Your task to perform on an android device: Open network settings Image 0: 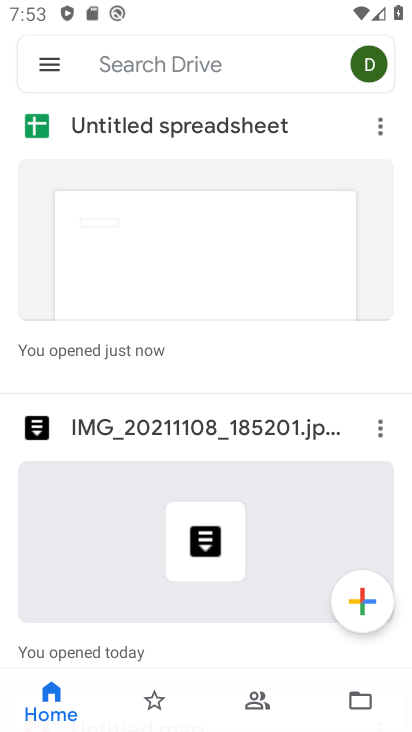
Step 0: press home button
Your task to perform on an android device: Open network settings Image 1: 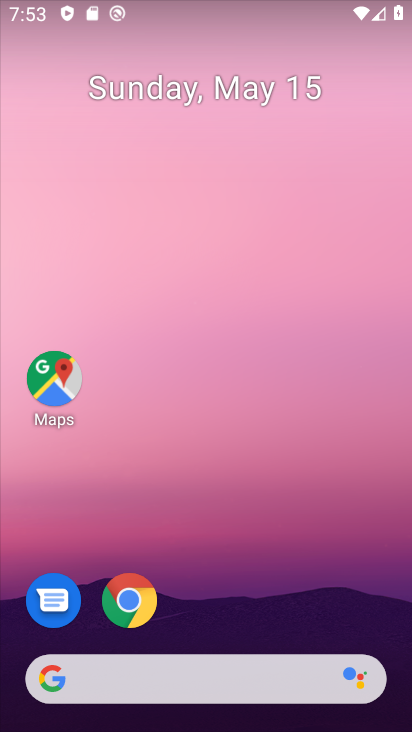
Step 1: drag from (176, 496) to (89, 51)
Your task to perform on an android device: Open network settings Image 2: 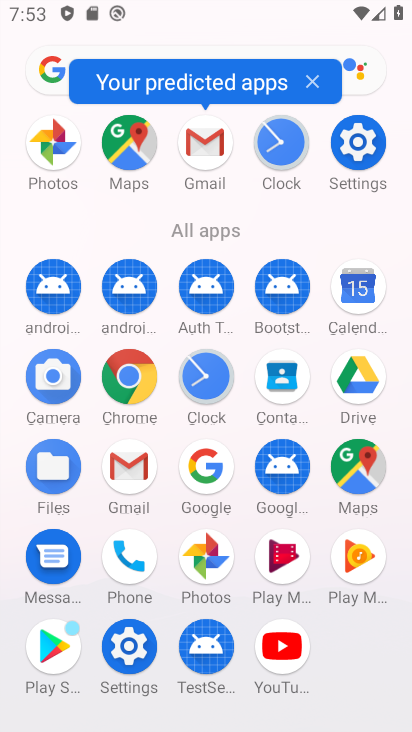
Step 2: click (130, 657)
Your task to perform on an android device: Open network settings Image 3: 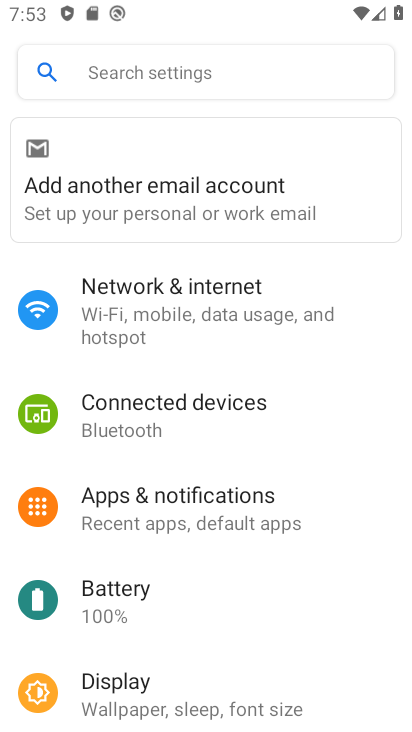
Step 3: click (184, 310)
Your task to perform on an android device: Open network settings Image 4: 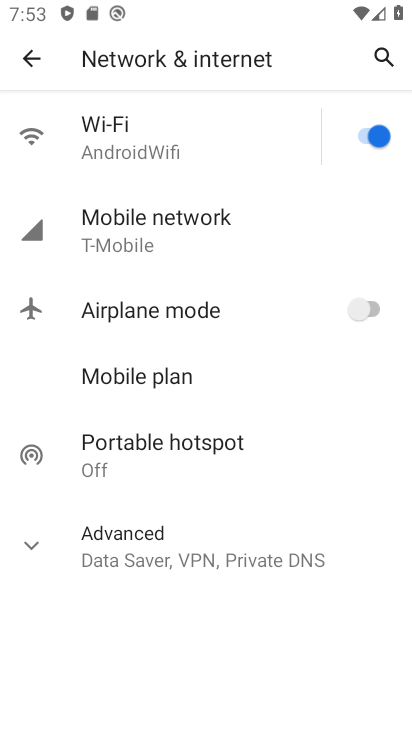
Step 4: task complete